Your task to perform on an android device: Go to ESPN.com Image 0: 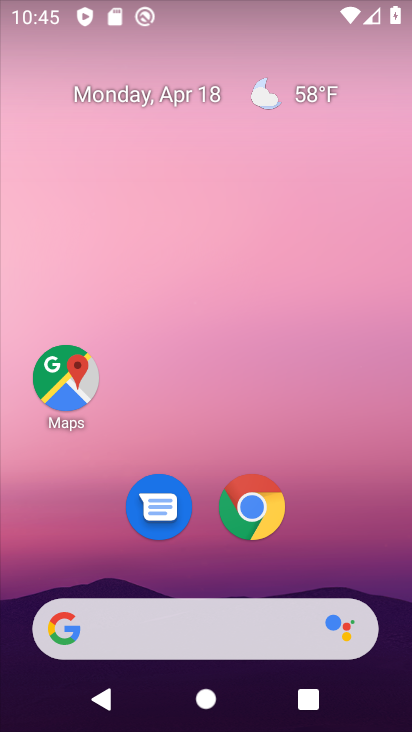
Step 0: click (246, 518)
Your task to perform on an android device: Go to ESPN.com Image 1: 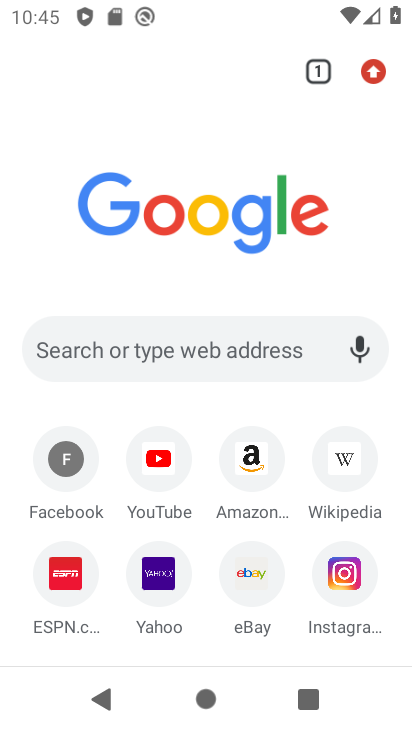
Step 1: click (171, 70)
Your task to perform on an android device: Go to ESPN.com Image 2: 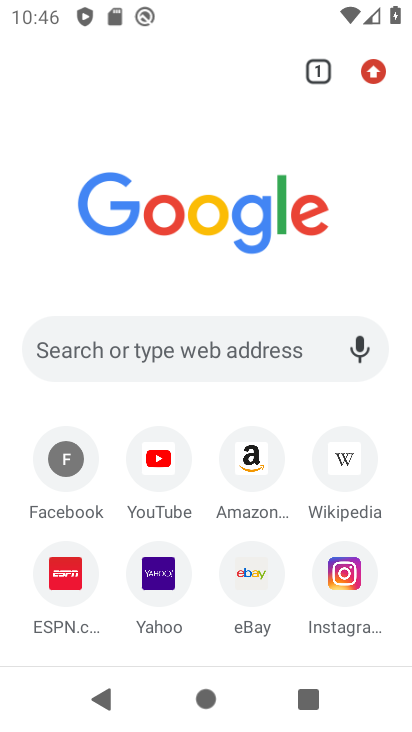
Step 2: click (78, 583)
Your task to perform on an android device: Go to ESPN.com Image 3: 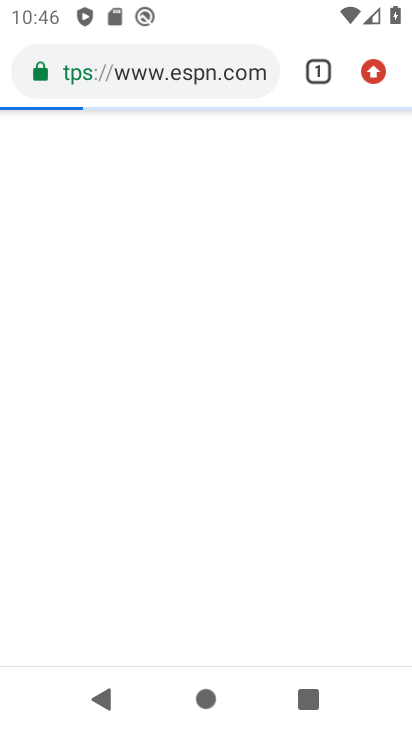
Step 3: task complete